Your task to perform on an android device: toggle improve location accuracy Image 0: 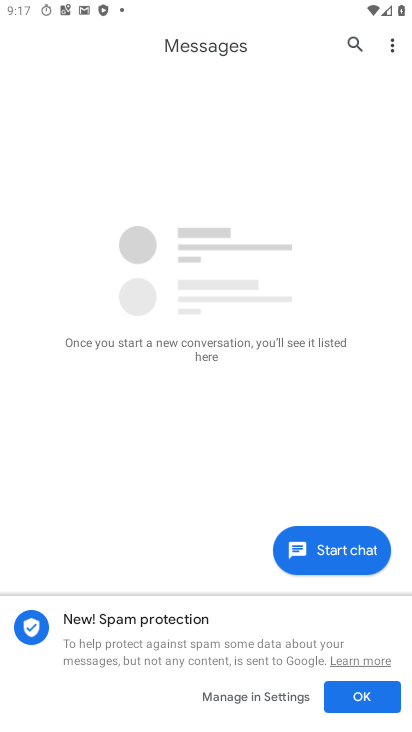
Step 0: press home button
Your task to perform on an android device: toggle improve location accuracy Image 1: 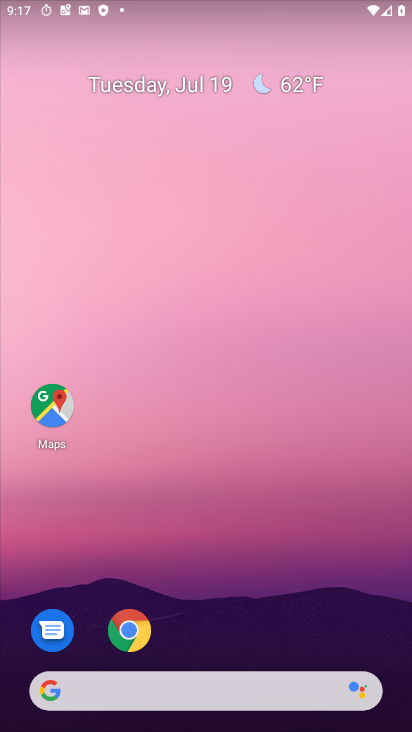
Step 1: drag from (33, 661) to (137, 56)
Your task to perform on an android device: toggle improve location accuracy Image 2: 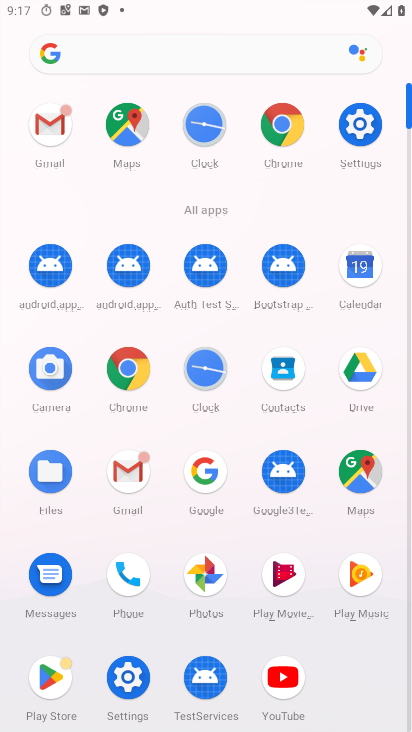
Step 2: click (133, 677)
Your task to perform on an android device: toggle improve location accuracy Image 3: 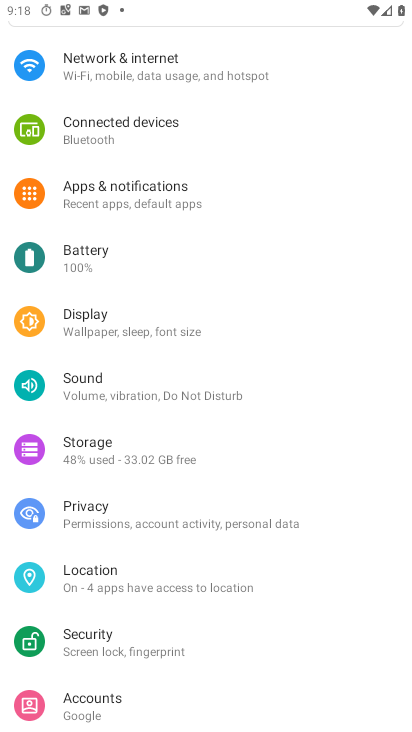
Step 3: click (120, 579)
Your task to perform on an android device: toggle improve location accuracy Image 4: 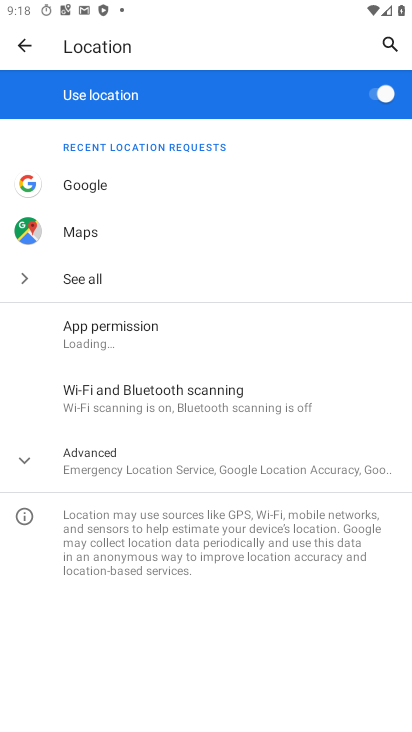
Step 4: click (139, 471)
Your task to perform on an android device: toggle improve location accuracy Image 5: 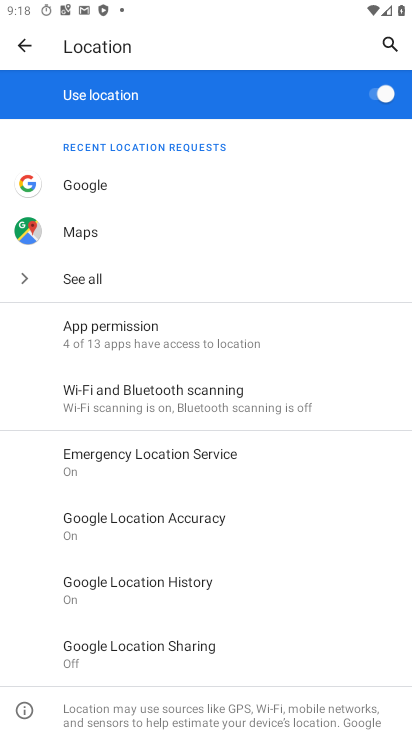
Step 5: task complete